Your task to perform on an android device: change the clock display to show seconds Image 0: 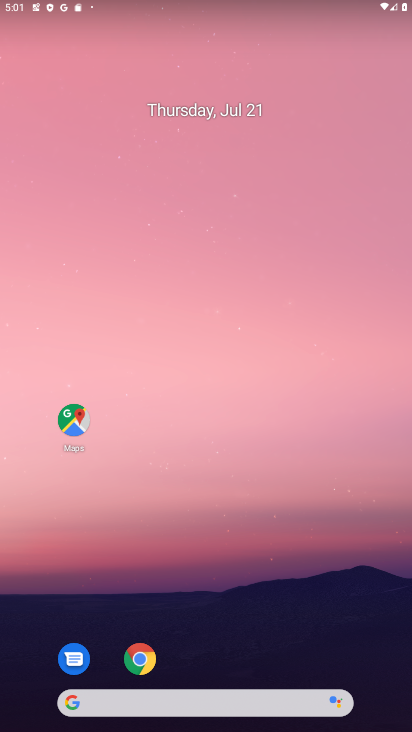
Step 0: drag from (230, 592) to (134, 34)
Your task to perform on an android device: change the clock display to show seconds Image 1: 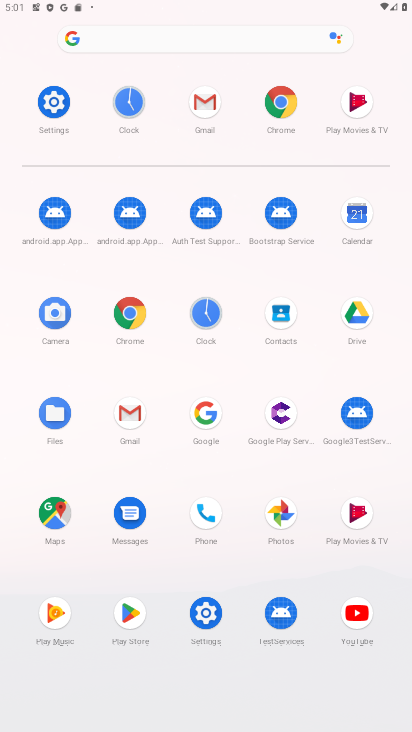
Step 1: click (207, 308)
Your task to perform on an android device: change the clock display to show seconds Image 2: 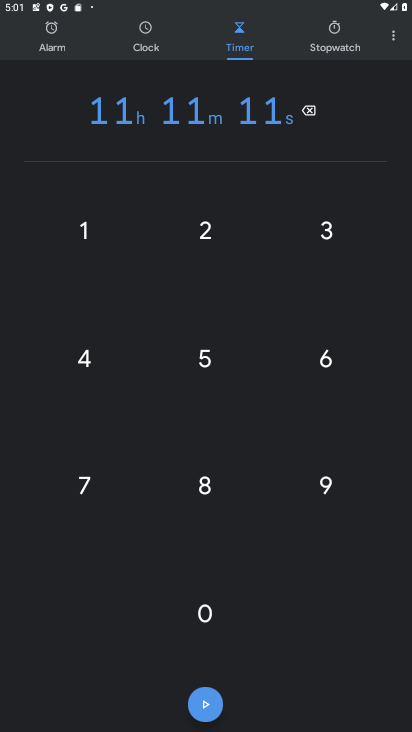
Step 2: click (394, 37)
Your task to perform on an android device: change the clock display to show seconds Image 3: 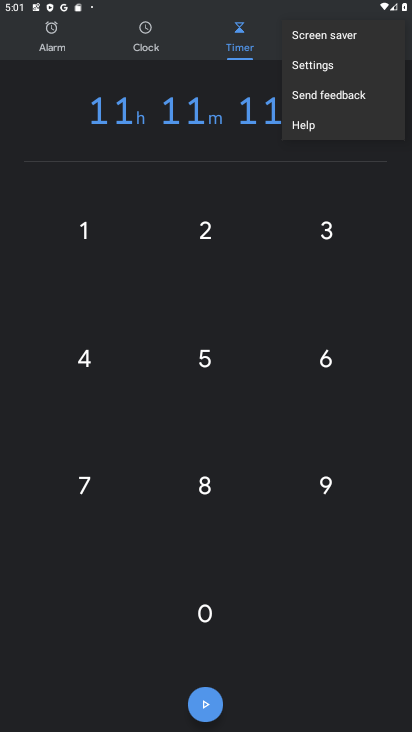
Step 3: click (331, 64)
Your task to perform on an android device: change the clock display to show seconds Image 4: 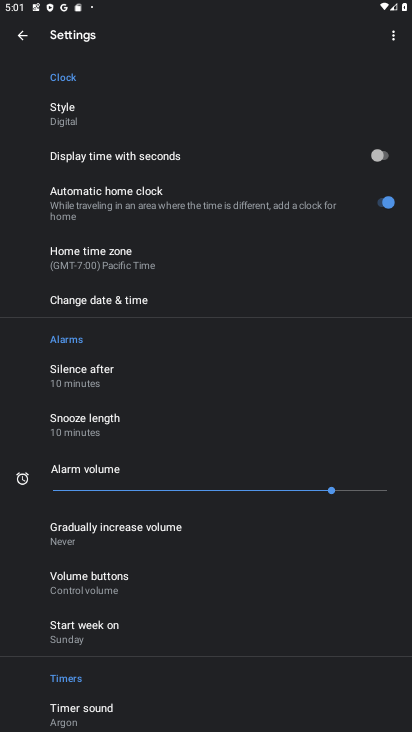
Step 4: click (376, 153)
Your task to perform on an android device: change the clock display to show seconds Image 5: 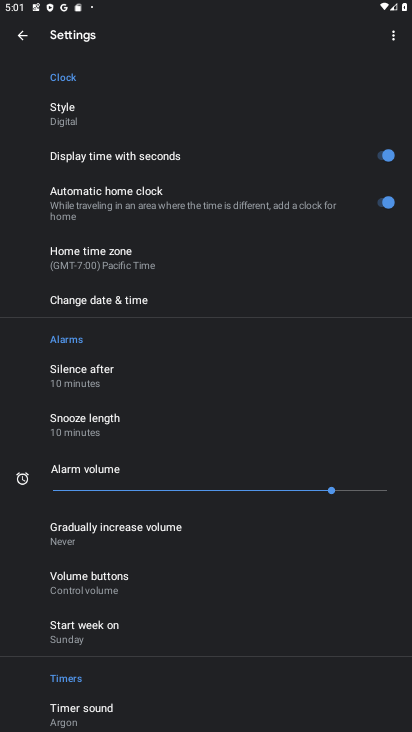
Step 5: task complete